Your task to perform on an android device: set default search engine in the chrome app Image 0: 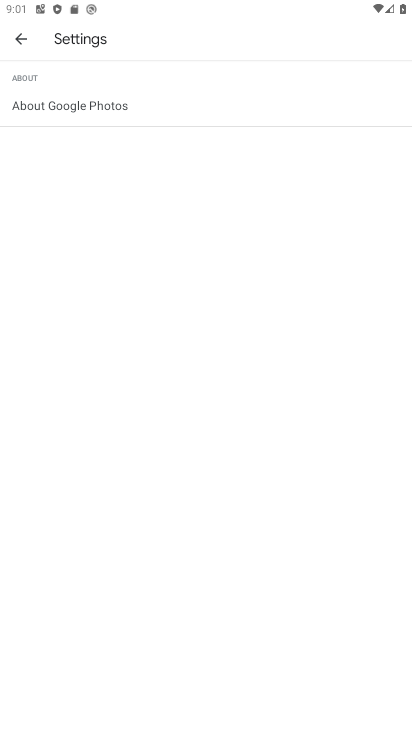
Step 0: press home button
Your task to perform on an android device: set default search engine in the chrome app Image 1: 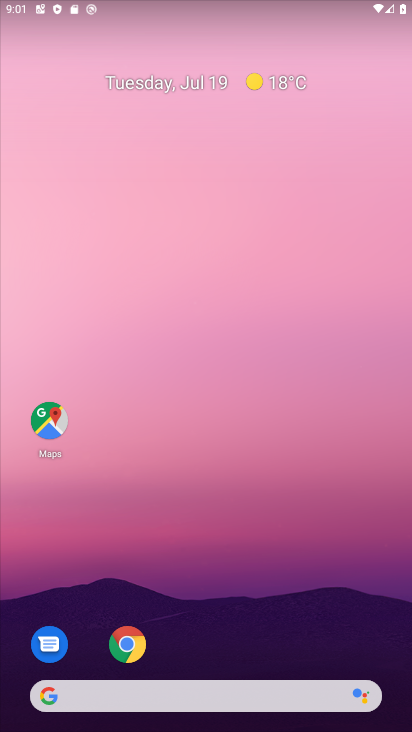
Step 1: drag from (217, 700) to (212, 150)
Your task to perform on an android device: set default search engine in the chrome app Image 2: 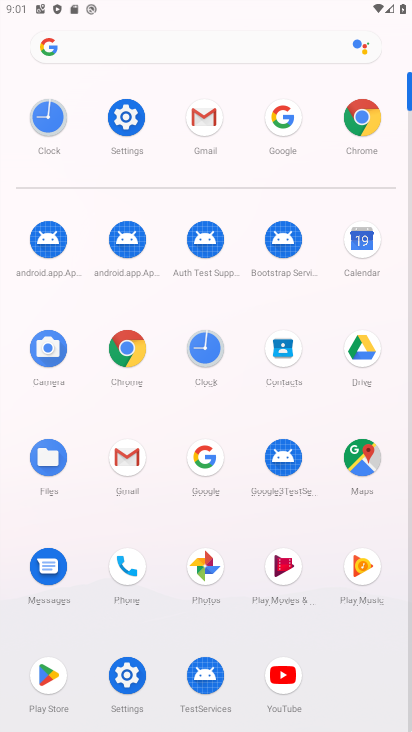
Step 2: click (125, 352)
Your task to perform on an android device: set default search engine in the chrome app Image 3: 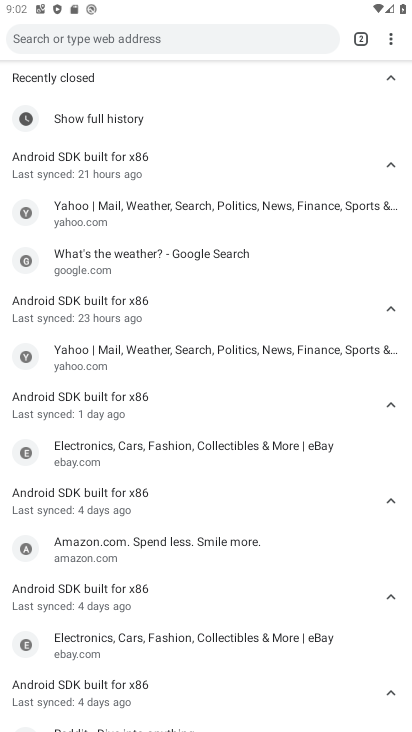
Step 3: click (389, 42)
Your task to perform on an android device: set default search engine in the chrome app Image 4: 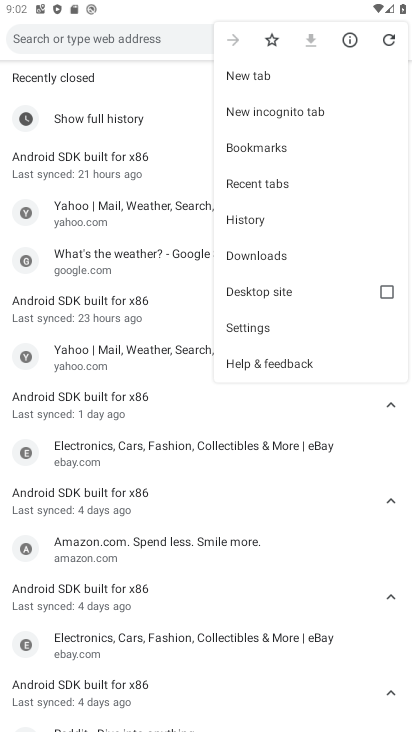
Step 4: click (251, 330)
Your task to perform on an android device: set default search engine in the chrome app Image 5: 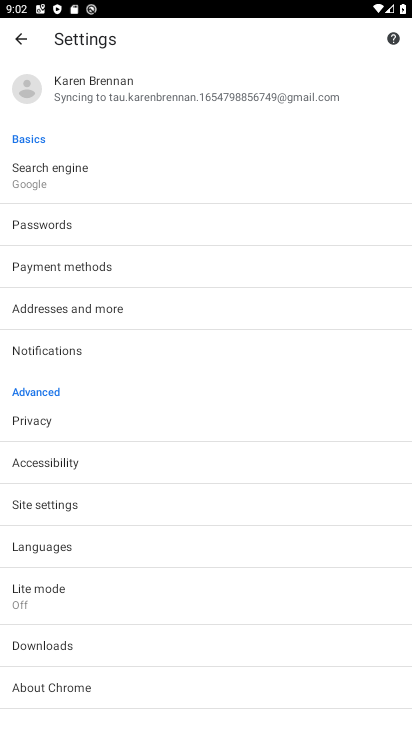
Step 5: click (48, 173)
Your task to perform on an android device: set default search engine in the chrome app Image 6: 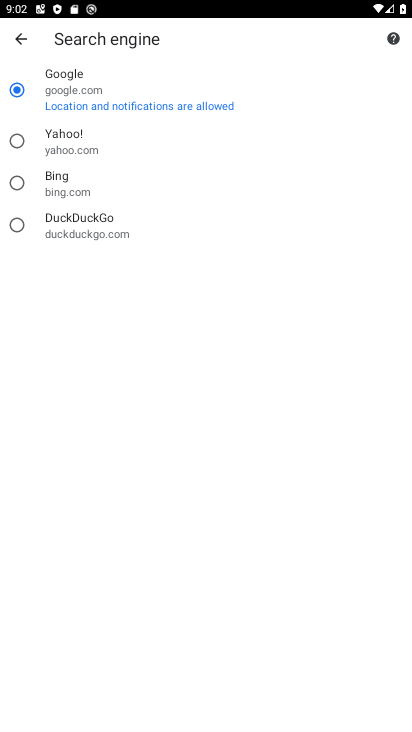
Step 6: click (17, 143)
Your task to perform on an android device: set default search engine in the chrome app Image 7: 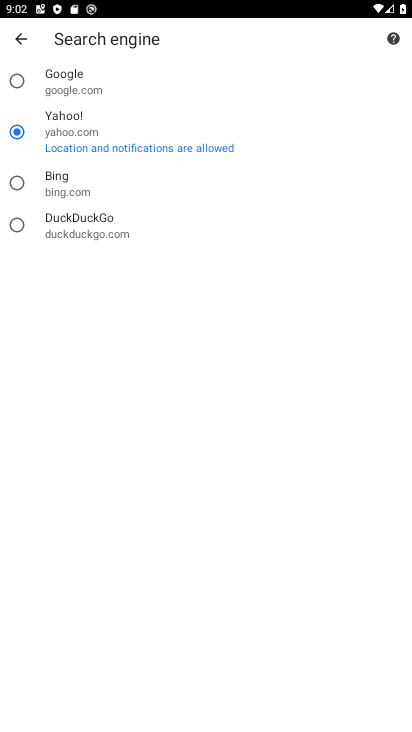
Step 7: task complete